Your task to perform on an android device: manage bookmarks in the chrome app Image 0: 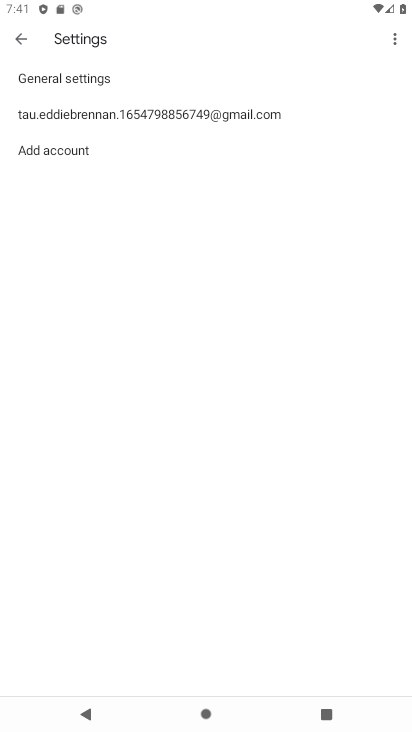
Step 0: press home button
Your task to perform on an android device: manage bookmarks in the chrome app Image 1: 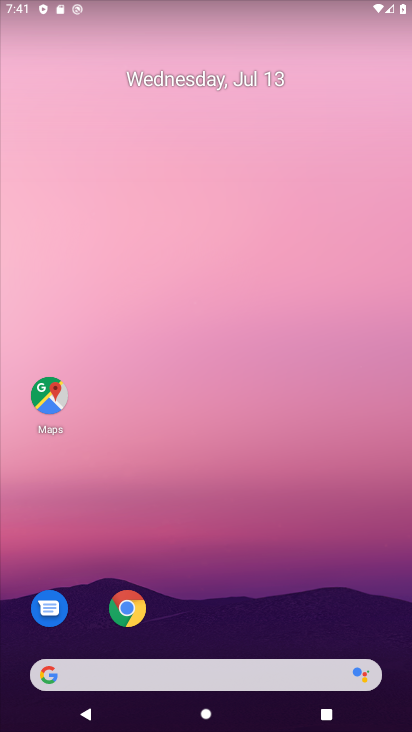
Step 1: click (131, 621)
Your task to perform on an android device: manage bookmarks in the chrome app Image 2: 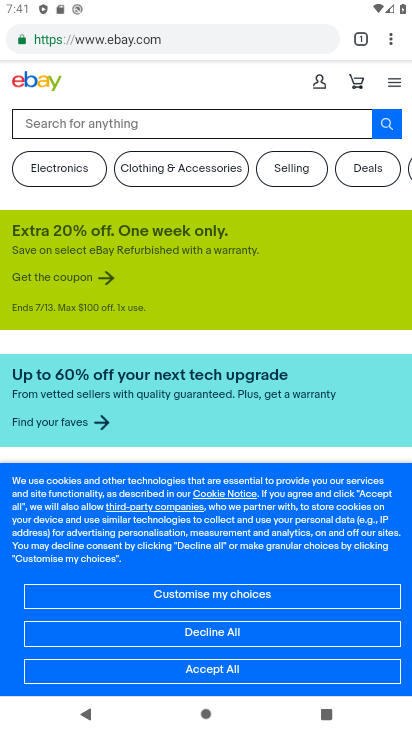
Step 2: drag from (391, 42) to (251, 205)
Your task to perform on an android device: manage bookmarks in the chrome app Image 3: 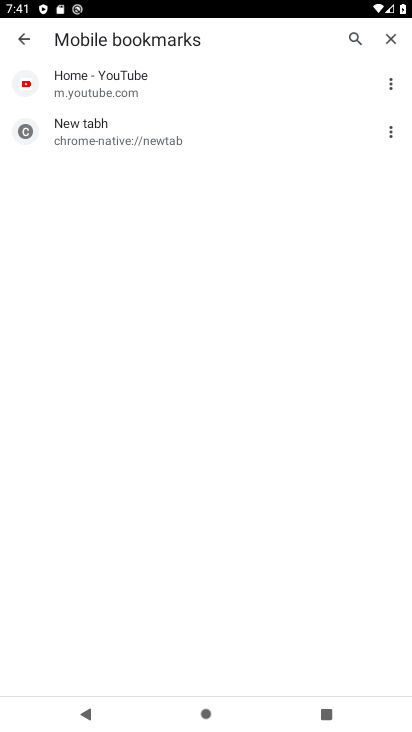
Step 3: click (386, 84)
Your task to perform on an android device: manage bookmarks in the chrome app Image 4: 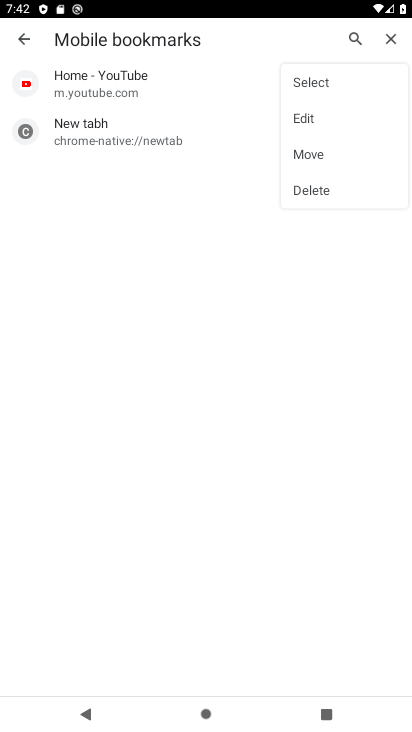
Step 4: click (300, 123)
Your task to perform on an android device: manage bookmarks in the chrome app Image 5: 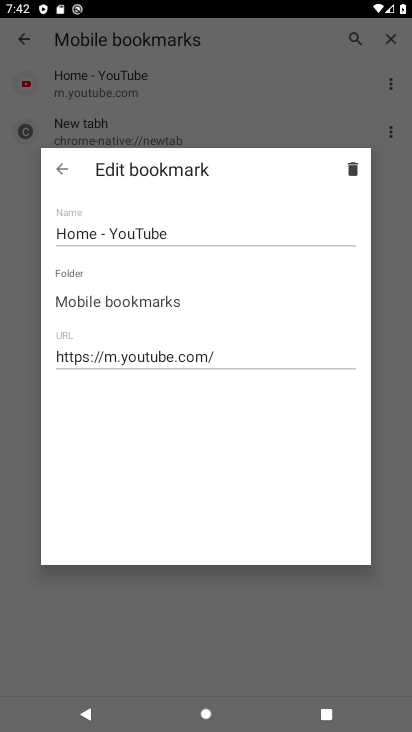
Step 5: task complete